Your task to perform on an android device: make emails show in primary in the gmail app Image 0: 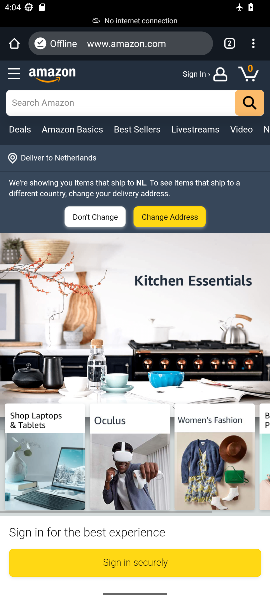
Step 0: press home button
Your task to perform on an android device: make emails show in primary in the gmail app Image 1: 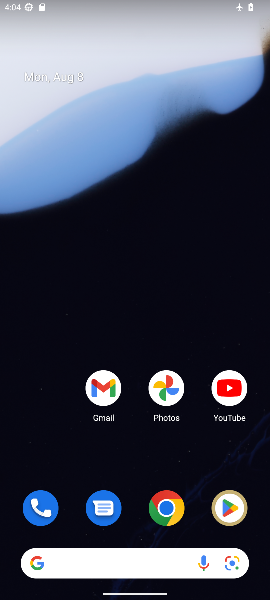
Step 1: click (103, 395)
Your task to perform on an android device: make emails show in primary in the gmail app Image 2: 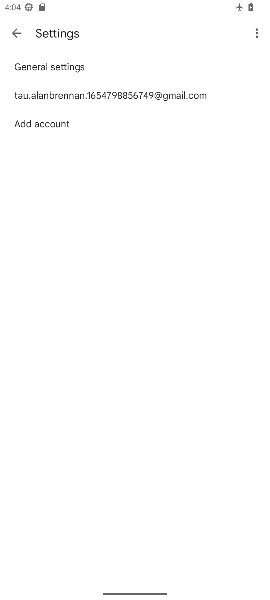
Step 2: click (19, 31)
Your task to perform on an android device: make emails show in primary in the gmail app Image 3: 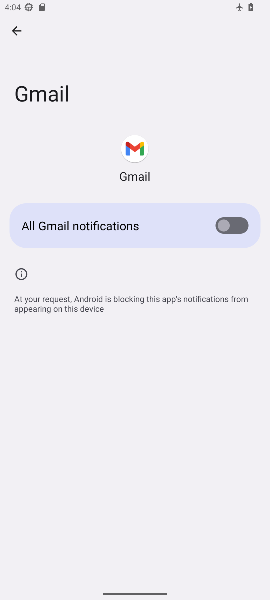
Step 3: click (19, 28)
Your task to perform on an android device: make emails show in primary in the gmail app Image 4: 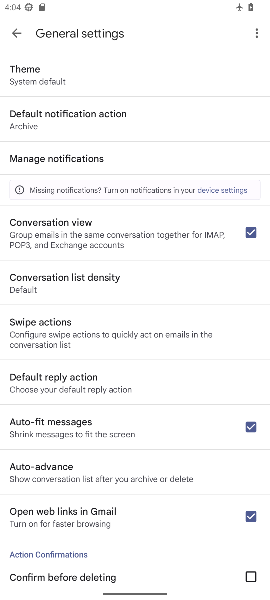
Step 4: click (15, 33)
Your task to perform on an android device: make emails show in primary in the gmail app Image 5: 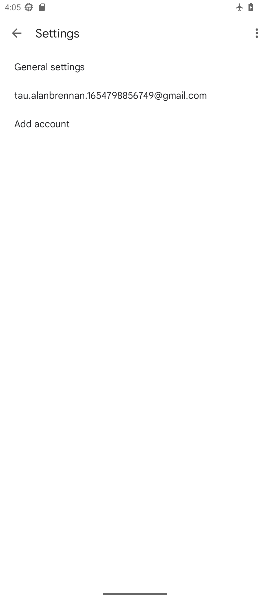
Step 5: click (17, 30)
Your task to perform on an android device: make emails show in primary in the gmail app Image 6: 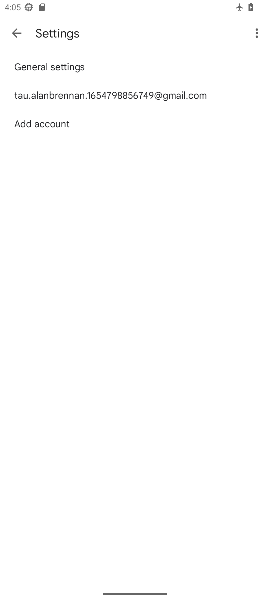
Step 6: click (15, 36)
Your task to perform on an android device: make emails show in primary in the gmail app Image 7: 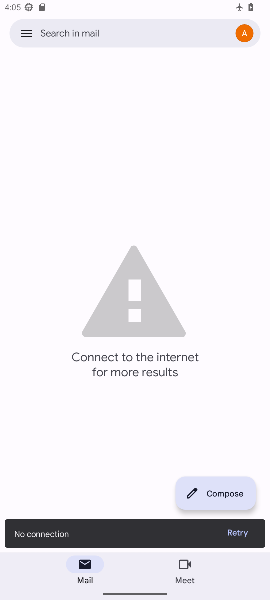
Step 7: click (22, 31)
Your task to perform on an android device: make emails show in primary in the gmail app Image 8: 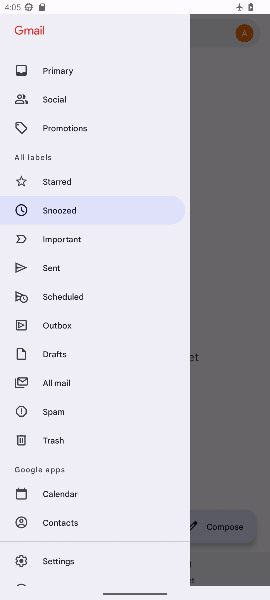
Step 8: drag from (137, 122) to (157, 530)
Your task to perform on an android device: make emails show in primary in the gmail app Image 9: 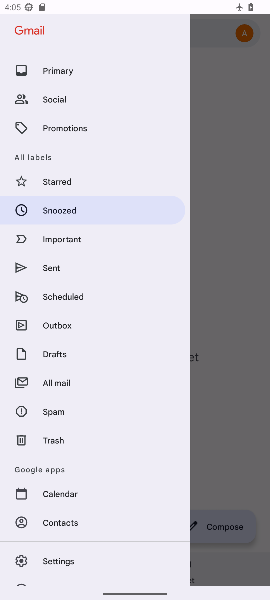
Step 9: click (60, 66)
Your task to perform on an android device: make emails show in primary in the gmail app Image 10: 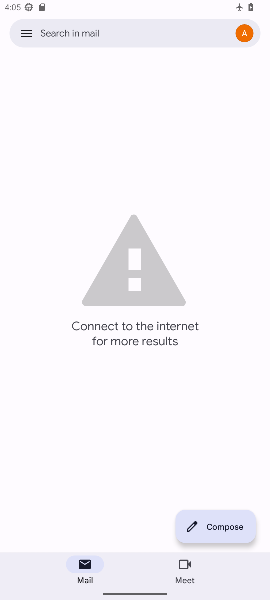
Step 10: task complete